Your task to perform on an android device: check data usage Image 0: 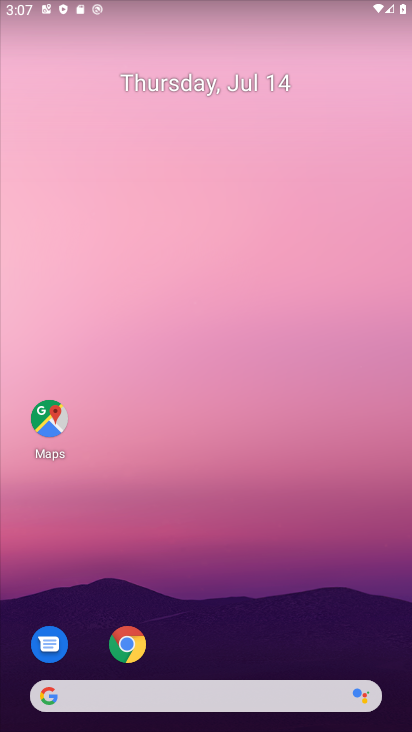
Step 0: drag from (171, 653) to (249, 33)
Your task to perform on an android device: check data usage Image 1: 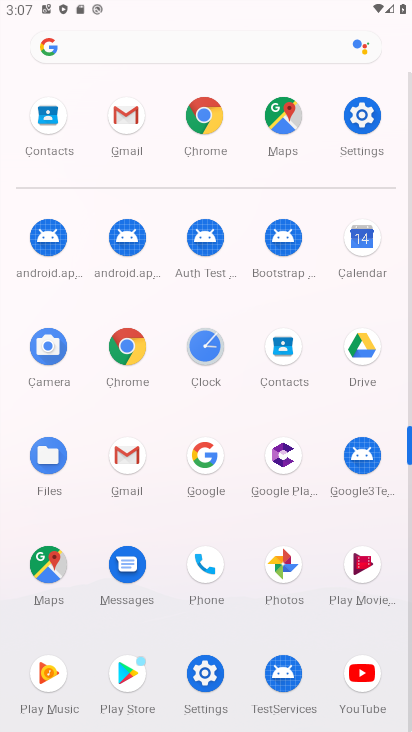
Step 1: click (203, 680)
Your task to perform on an android device: check data usage Image 2: 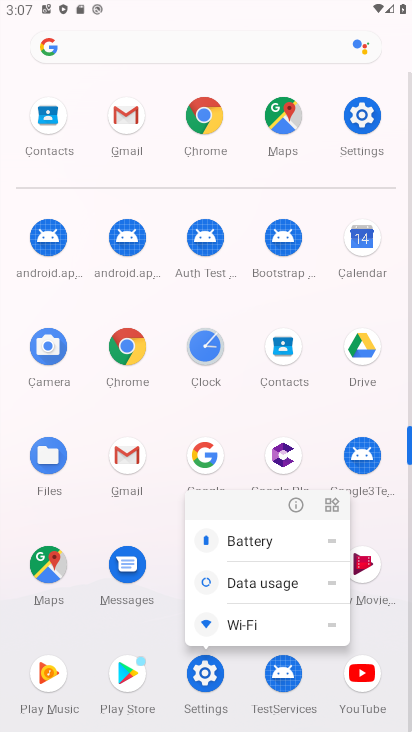
Step 2: click (291, 506)
Your task to perform on an android device: check data usage Image 3: 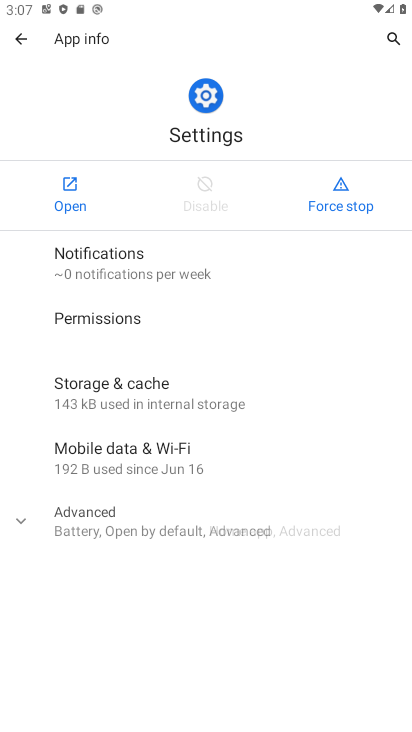
Step 3: click (67, 183)
Your task to perform on an android device: check data usage Image 4: 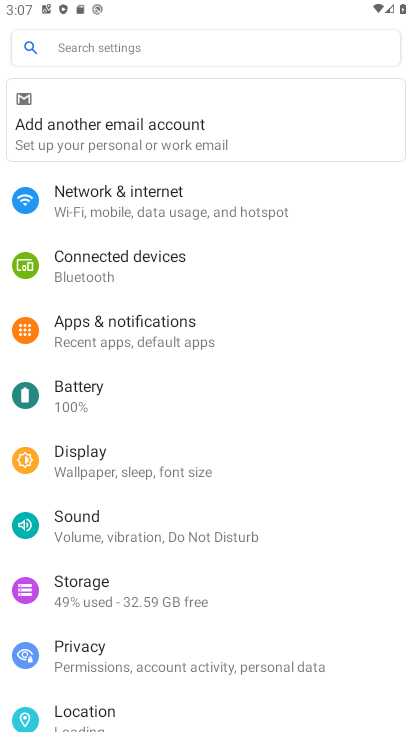
Step 4: click (155, 209)
Your task to perform on an android device: check data usage Image 5: 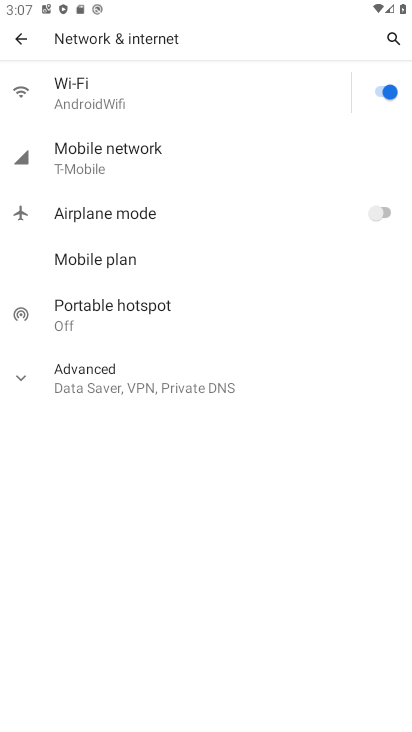
Step 5: click (201, 163)
Your task to perform on an android device: check data usage Image 6: 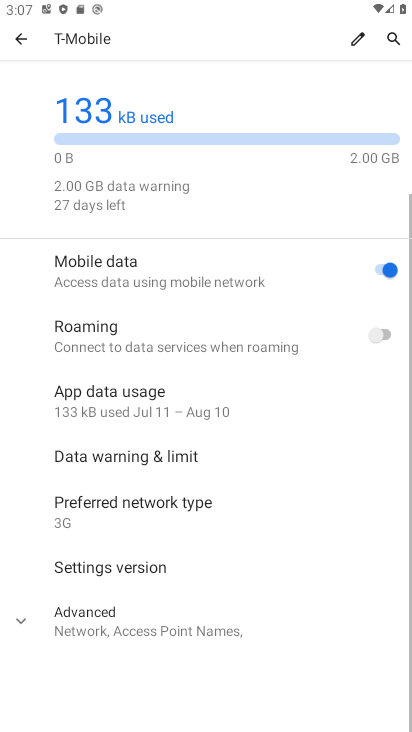
Step 6: task complete